Your task to perform on an android device: create a new album in the google photos Image 0: 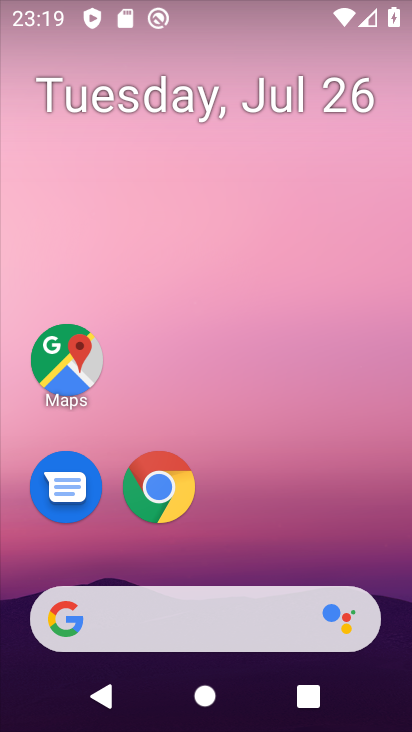
Step 0: drag from (286, 515) to (312, 1)
Your task to perform on an android device: create a new album in the google photos Image 1: 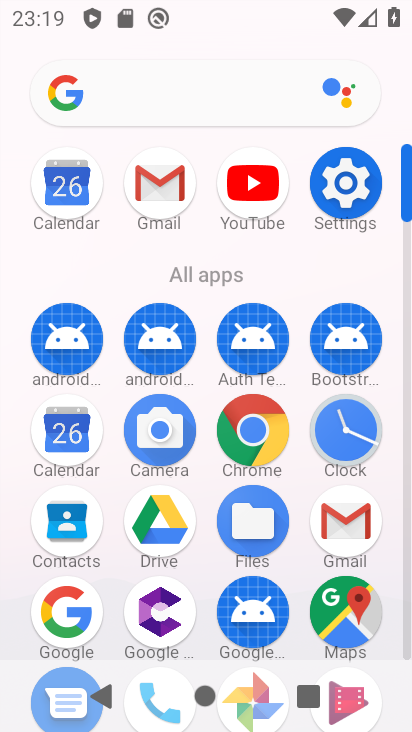
Step 1: drag from (192, 592) to (265, 150)
Your task to perform on an android device: create a new album in the google photos Image 2: 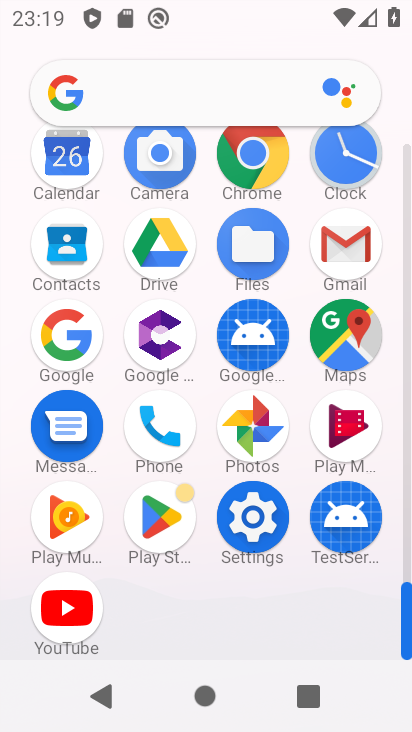
Step 2: click (240, 429)
Your task to perform on an android device: create a new album in the google photos Image 3: 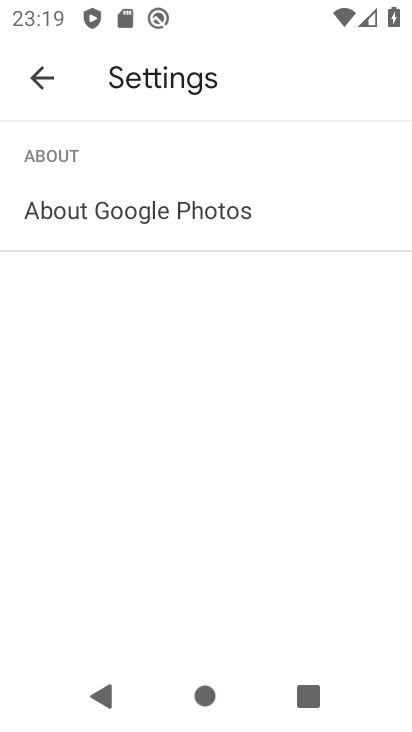
Step 3: press back button
Your task to perform on an android device: create a new album in the google photos Image 4: 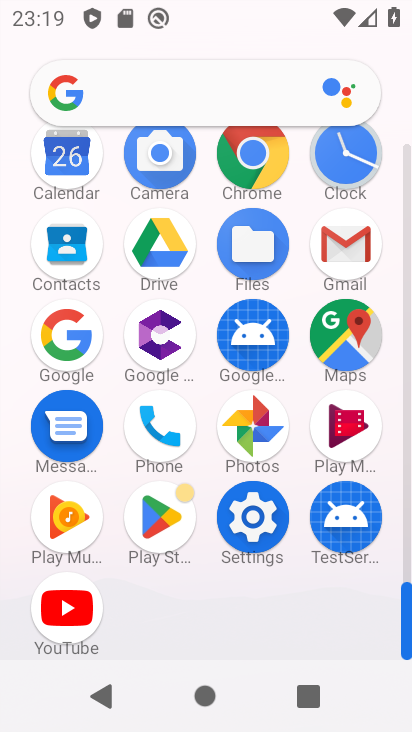
Step 4: press back button
Your task to perform on an android device: create a new album in the google photos Image 5: 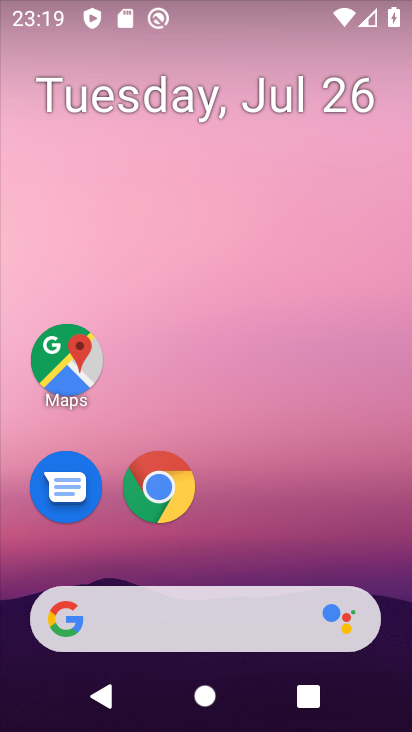
Step 5: drag from (247, 522) to (289, 4)
Your task to perform on an android device: create a new album in the google photos Image 6: 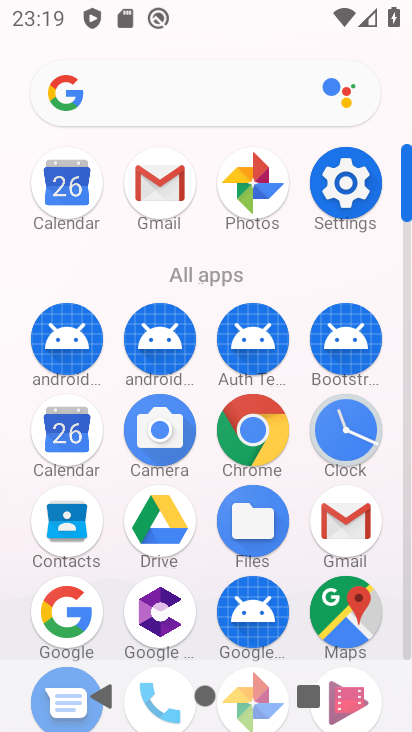
Step 6: click (259, 183)
Your task to perform on an android device: create a new album in the google photos Image 7: 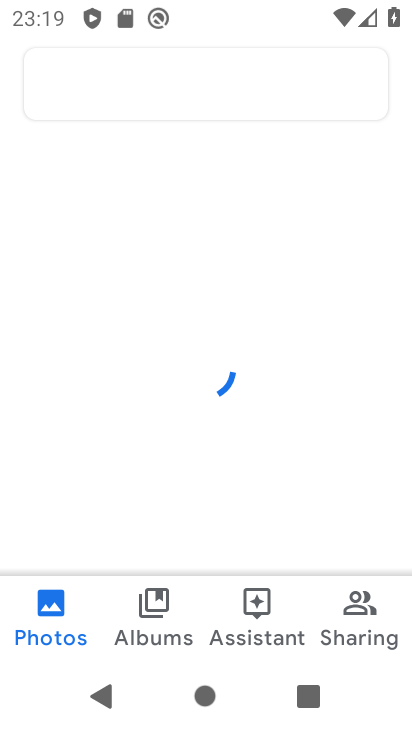
Step 7: click (145, 620)
Your task to perform on an android device: create a new album in the google photos Image 8: 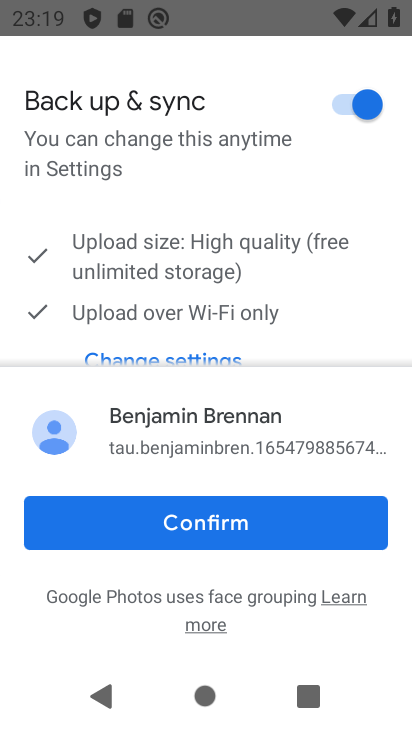
Step 8: click (198, 528)
Your task to perform on an android device: create a new album in the google photos Image 9: 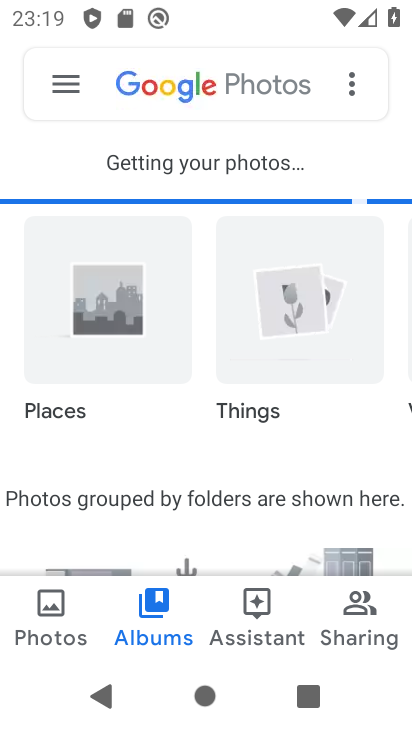
Step 9: drag from (214, 461) to (235, 207)
Your task to perform on an android device: create a new album in the google photos Image 10: 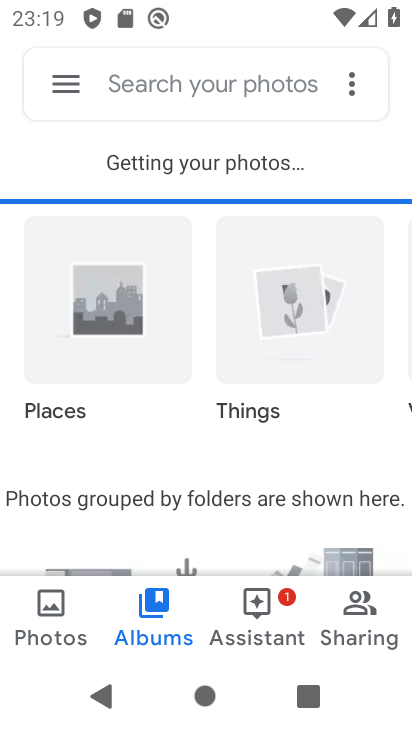
Step 10: click (344, 79)
Your task to perform on an android device: create a new album in the google photos Image 11: 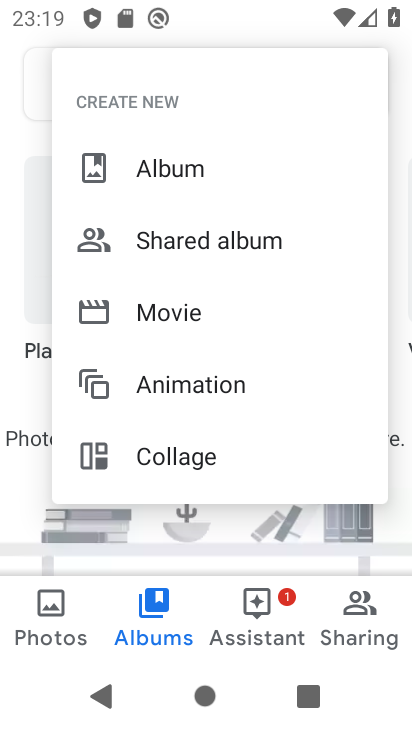
Step 11: click (173, 181)
Your task to perform on an android device: create a new album in the google photos Image 12: 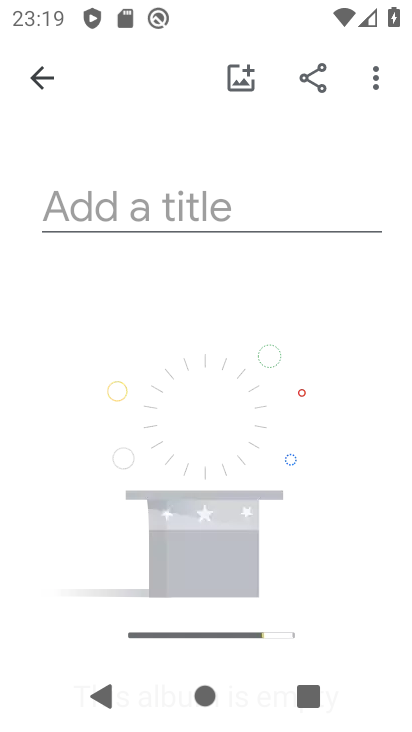
Step 12: click (125, 213)
Your task to perform on an android device: create a new album in the google photos Image 13: 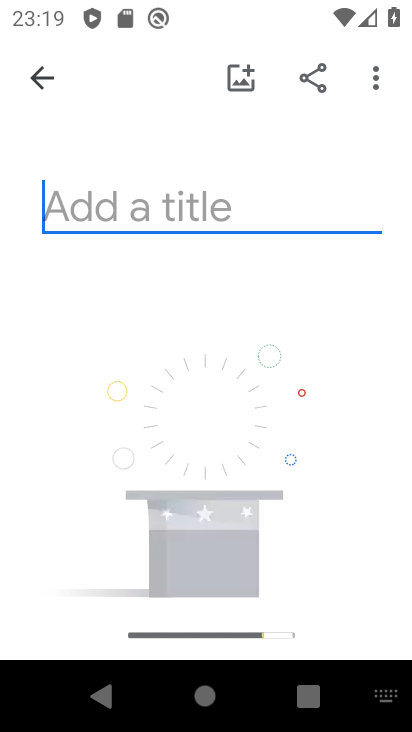
Step 13: type "fngng"
Your task to perform on an android device: create a new album in the google photos Image 14: 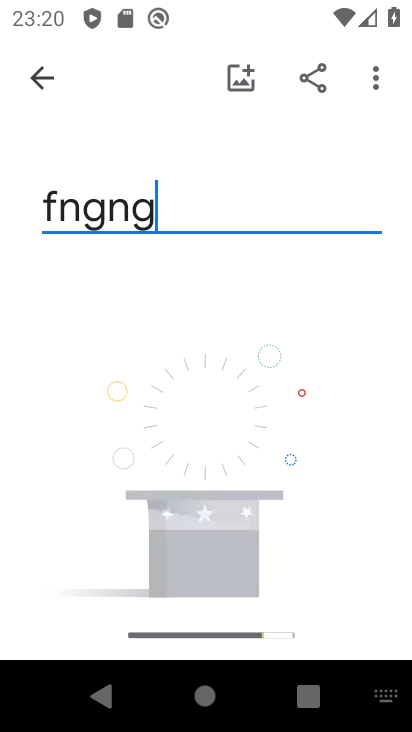
Step 14: drag from (268, 512) to (265, 26)
Your task to perform on an android device: create a new album in the google photos Image 15: 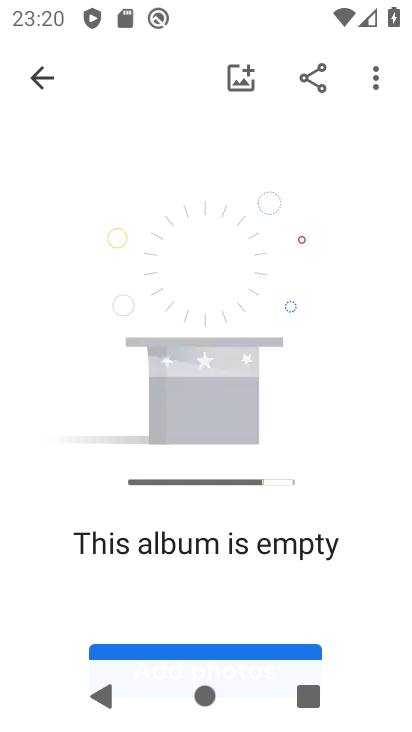
Step 15: drag from (174, 586) to (191, 6)
Your task to perform on an android device: create a new album in the google photos Image 16: 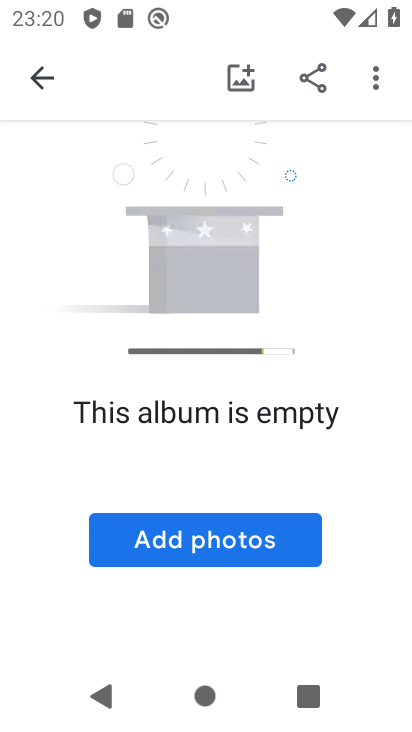
Step 16: click (157, 550)
Your task to perform on an android device: create a new album in the google photos Image 17: 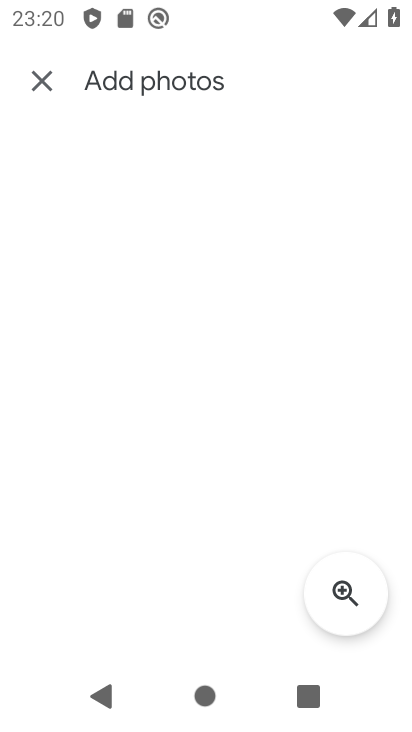
Step 17: task complete